Your task to perform on an android device: toggle javascript in the chrome app Image 0: 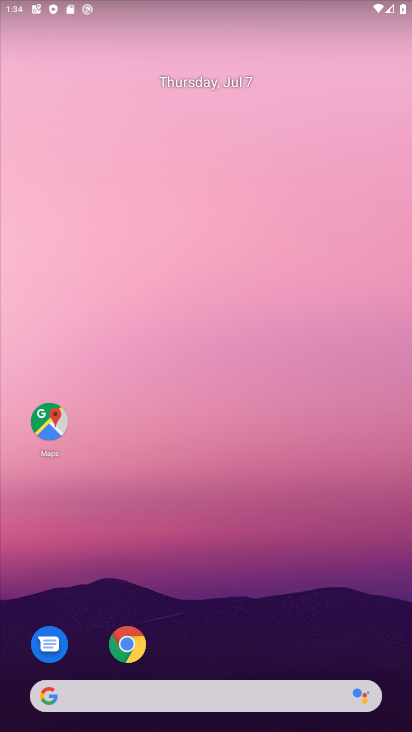
Step 0: click (137, 648)
Your task to perform on an android device: toggle javascript in the chrome app Image 1: 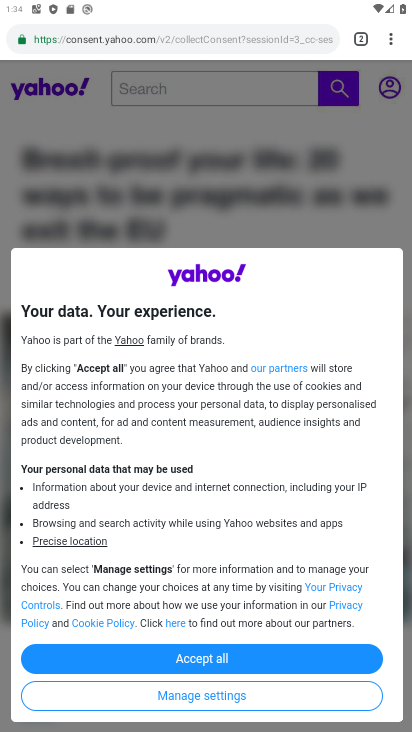
Step 1: drag from (392, 34) to (291, 464)
Your task to perform on an android device: toggle javascript in the chrome app Image 2: 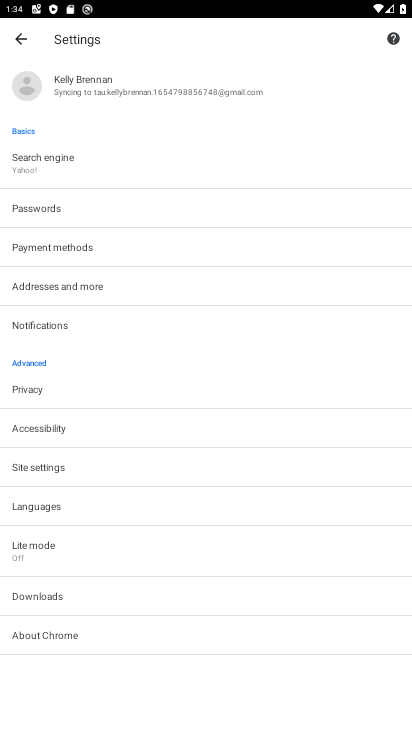
Step 2: click (68, 469)
Your task to perform on an android device: toggle javascript in the chrome app Image 3: 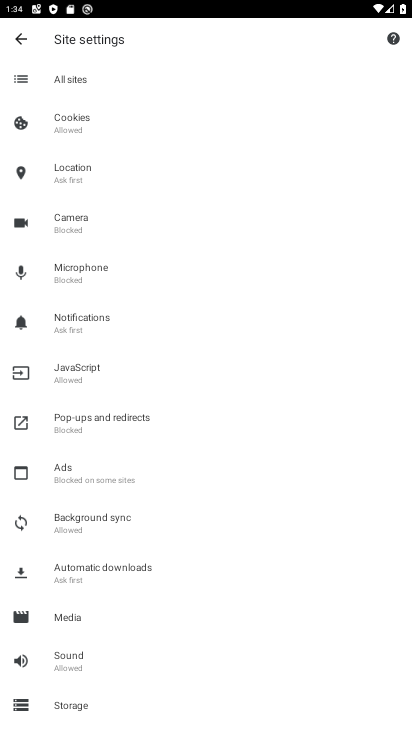
Step 3: click (114, 380)
Your task to perform on an android device: toggle javascript in the chrome app Image 4: 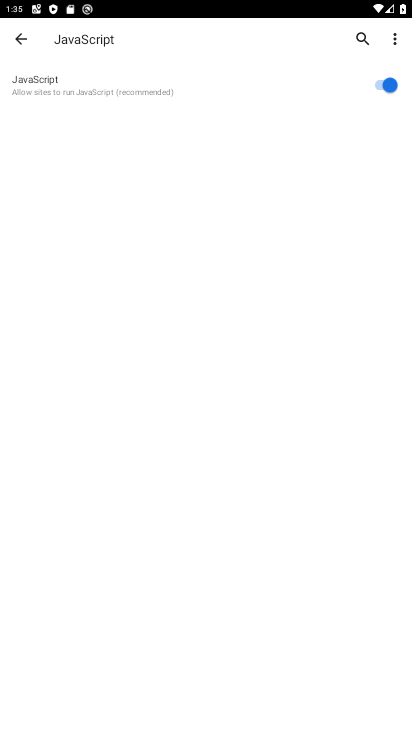
Step 4: click (377, 88)
Your task to perform on an android device: toggle javascript in the chrome app Image 5: 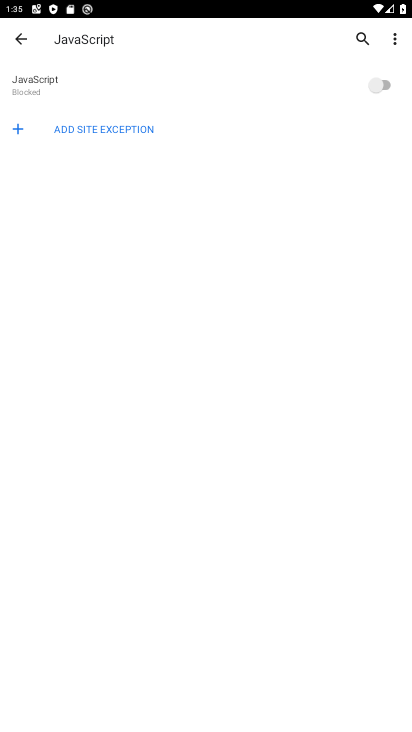
Step 5: task complete